Your task to perform on an android device: toggle notification dots Image 0: 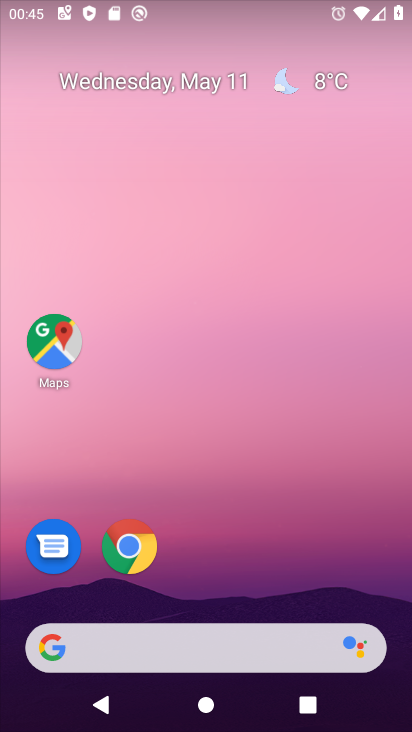
Step 0: drag from (228, 647) to (381, 84)
Your task to perform on an android device: toggle notification dots Image 1: 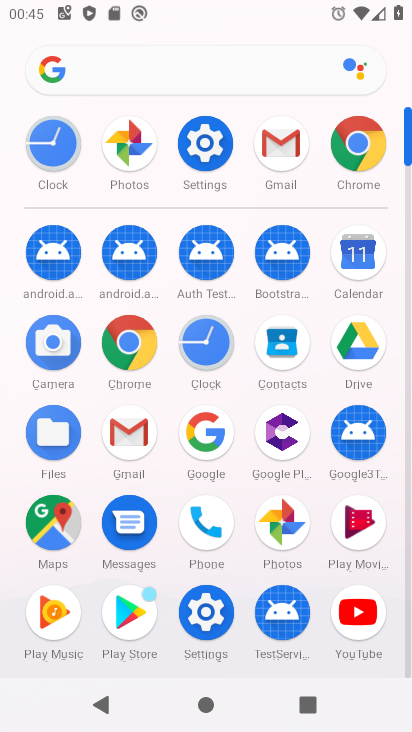
Step 1: click (241, 138)
Your task to perform on an android device: toggle notification dots Image 2: 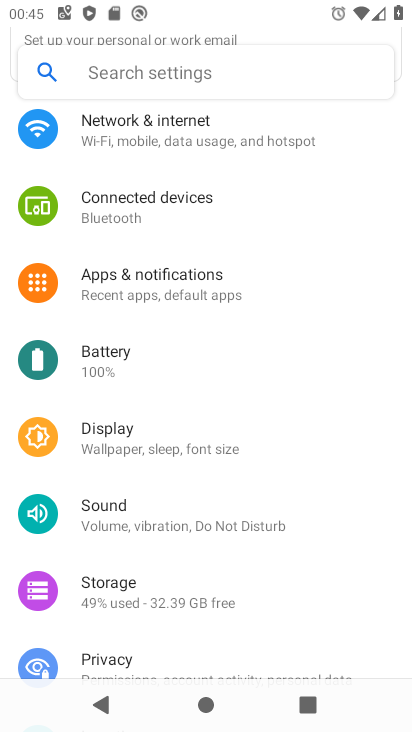
Step 2: click (200, 282)
Your task to perform on an android device: toggle notification dots Image 3: 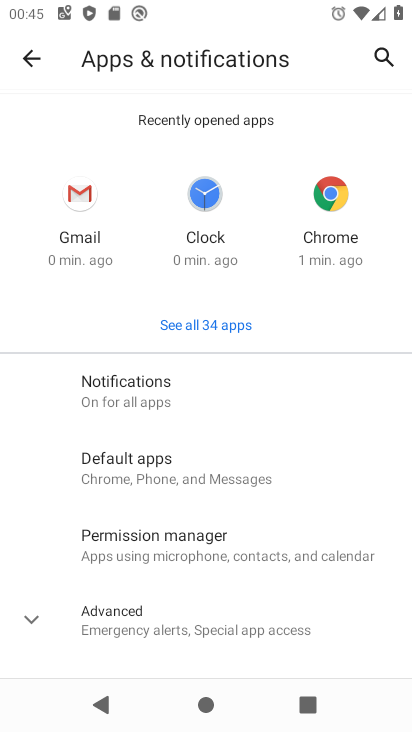
Step 3: click (166, 405)
Your task to perform on an android device: toggle notification dots Image 4: 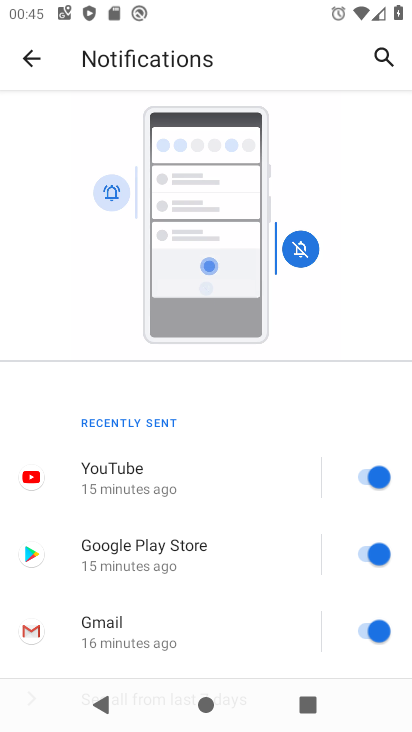
Step 4: drag from (170, 633) to (369, 138)
Your task to perform on an android device: toggle notification dots Image 5: 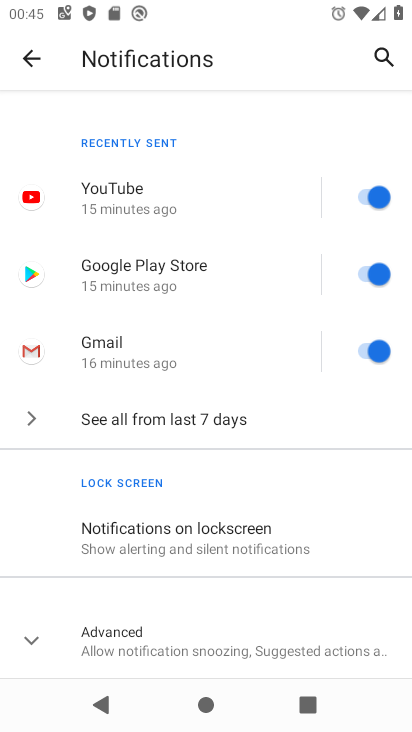
Step 5: click (160, 648)
Your task to perform on an android device: toggle notification dots Image 6: 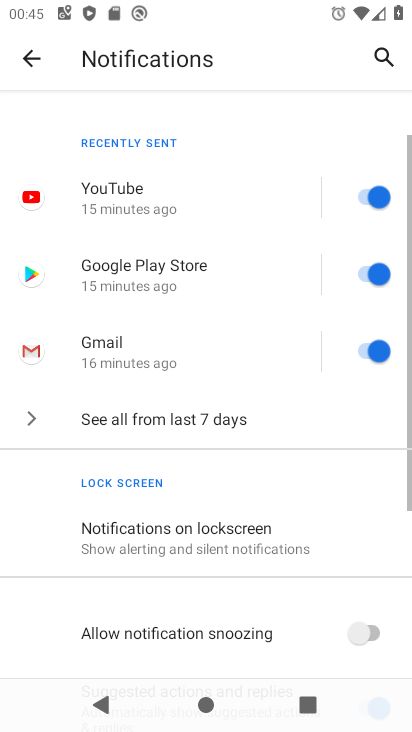
Step 6: drag from (164, 644) to (339, 216)
Your task to perform on an android device: toggle notification dots Image 7: 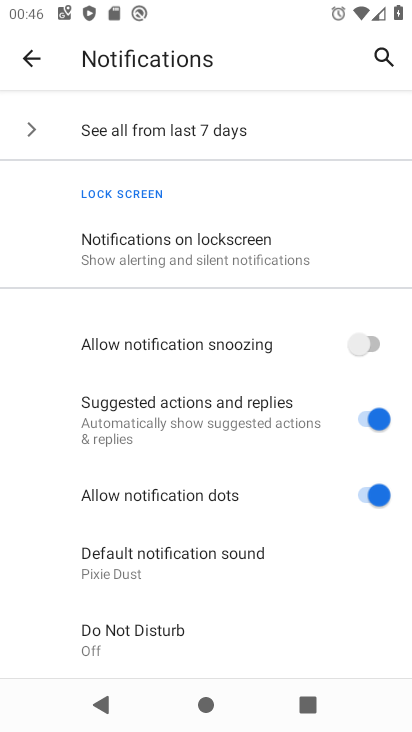
Step 7: click (366, 484)
Your task to perform on an android device: toggle notification dots Image 8: 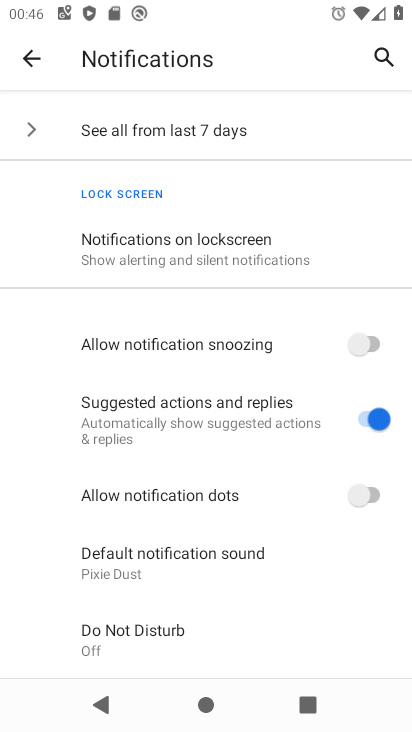
Step 8: task complete